Your task to perform on an android device: Go to Wikipedia Image 0: 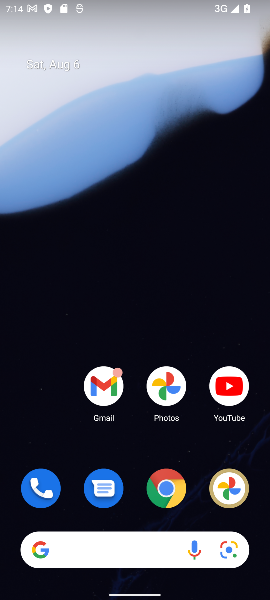
Step 0: click (170, 490)
Your task to perform on an android device: Go to Wikipedia Image 1: 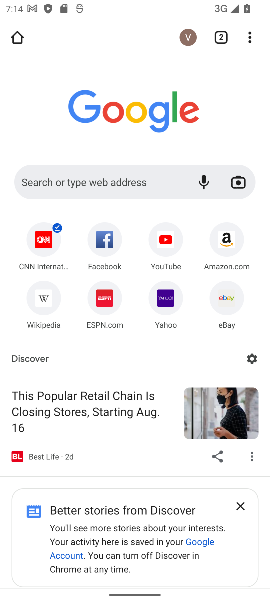
Step 1: click (50, 298)
Your task to perform on an android device: Go to Wikipedia Image 2: 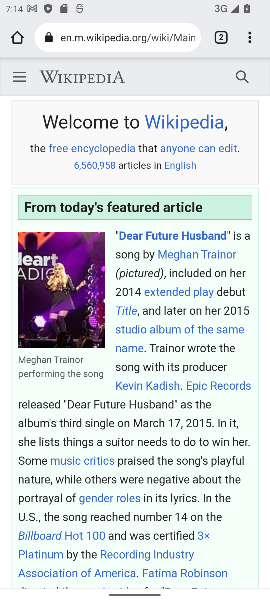
Step 2: task complete